Your task to perform on an android device: See recent photos Image 0: 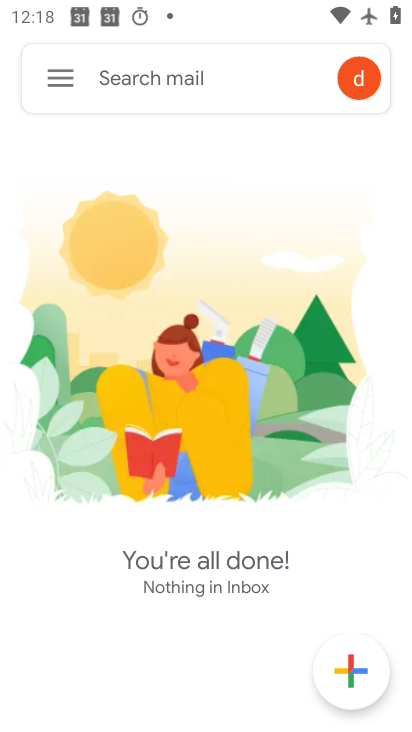
Step 0: press home button
Your task to perform on an android device: See recent photos Image 1: 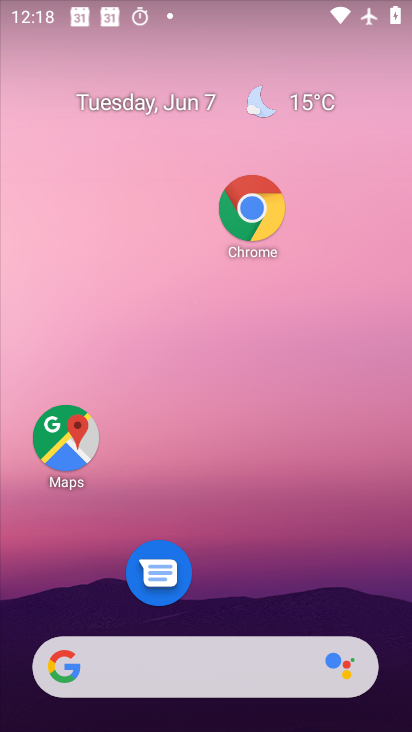
Step 1: drag from (222, 581) to (223, 192)
Your task to perform on an android device: See recent photos Image 2: 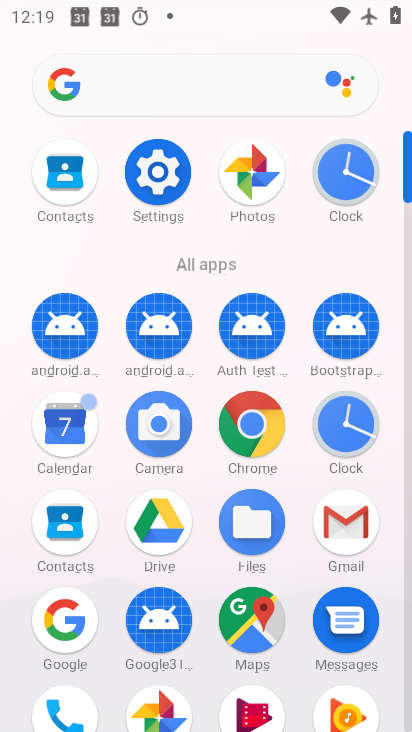
Step 2: click (242, 161)
Your task to perform on an android device: See recent photos Image 3: 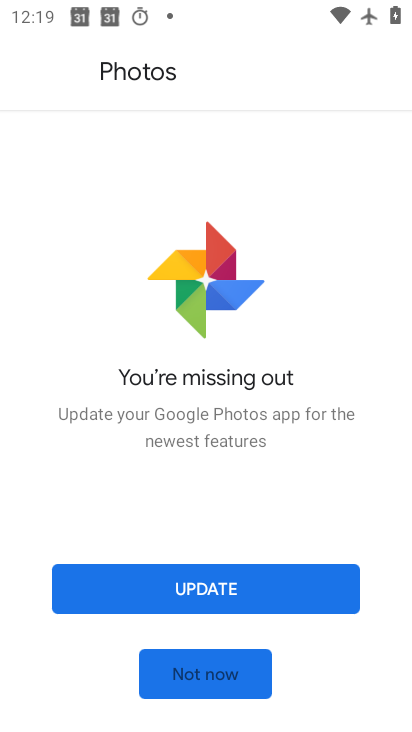
Step 3: click (289, 434)
Your task to perform on an android device: See recent photos Image 4: 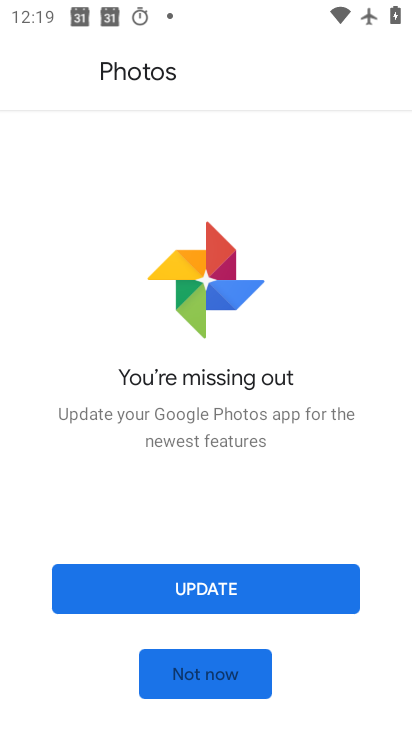
Step 4: click (204, 679)
Your task to perform on an android device: See recent photos Image 5: 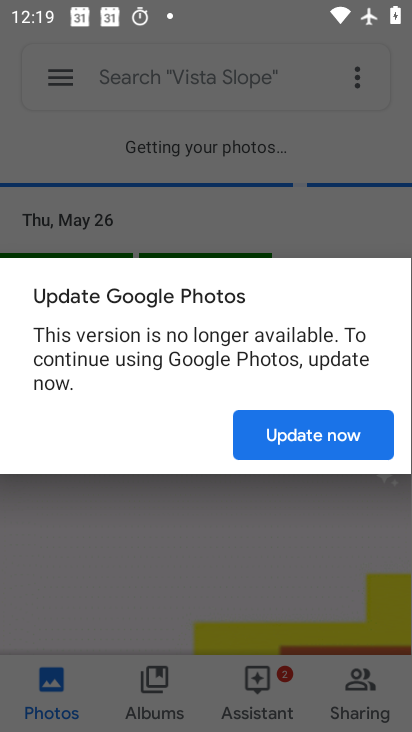
Step 5: click (299, 423)
Your task to perform on an android device: See recent photos Image 6: 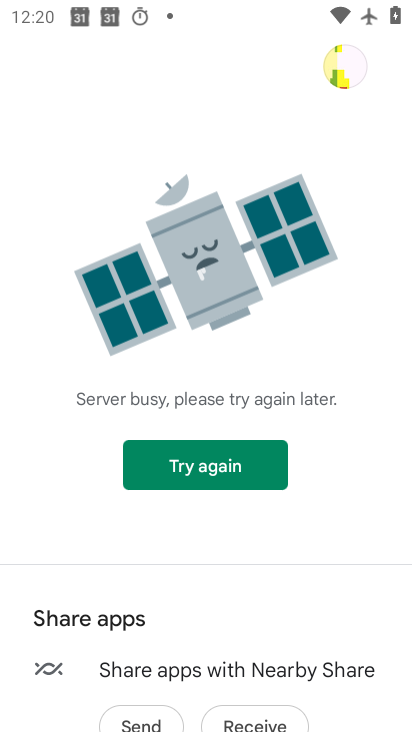
Step 6: task complete